Your task to perform on an android device: change the clock display to show seconds Image 0: 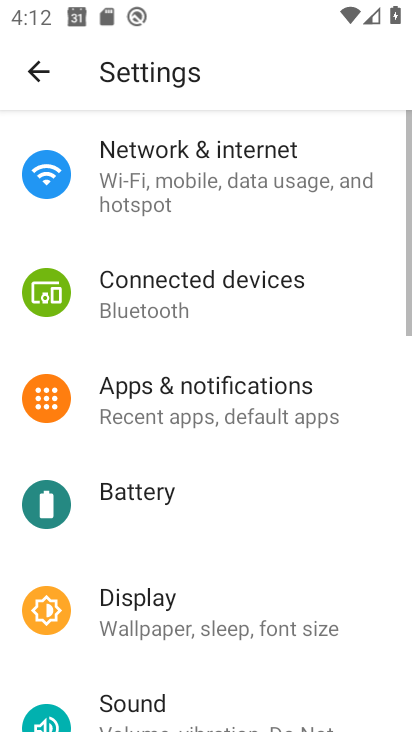
Step 0: press home button
Your task to perform on an android device: change the clock display to show seconds Image 1: 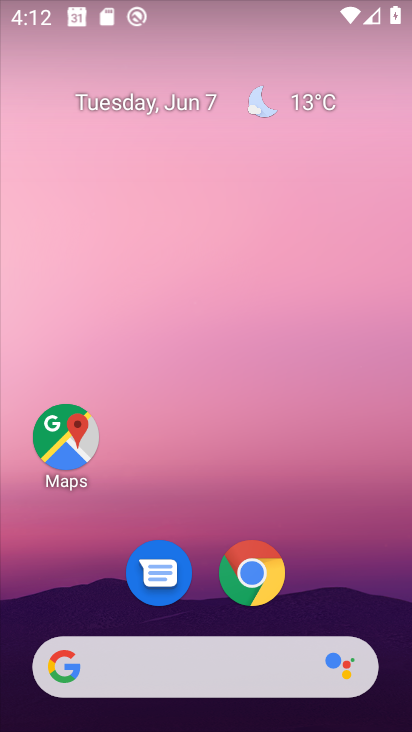
Step 1: drag from (372, 607) to (287, 77)
Your task to perform on an android device: change the clock display to show seconds Image 2: 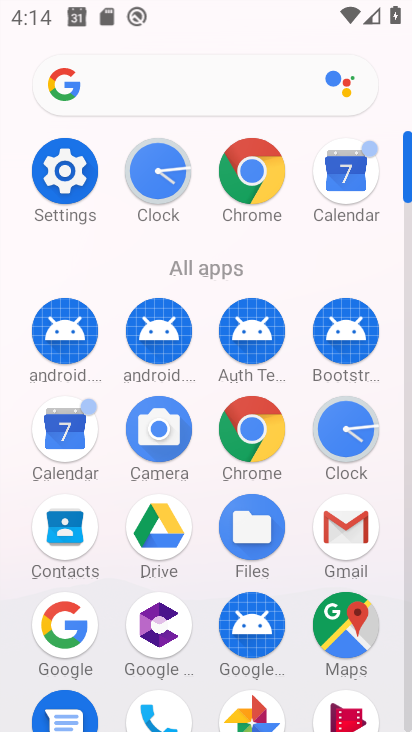
Step 2: click (158, 169)
Your task to perform on an android device: change the clock display to show seconds Image 3: 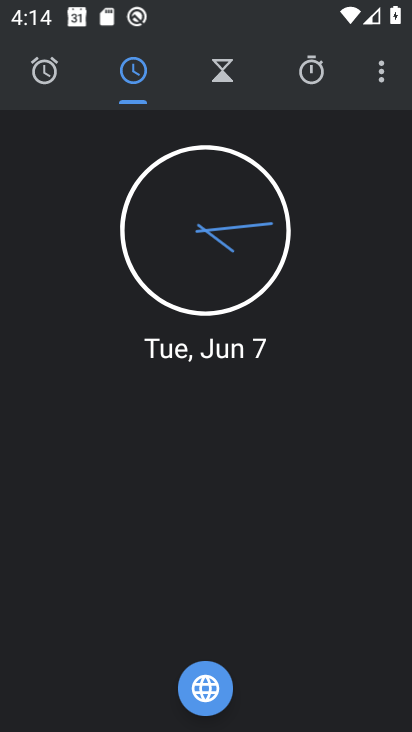
Step 3: click (384, 69)
Your task to perform on an android device: change the clock display to show seconds Image 4: 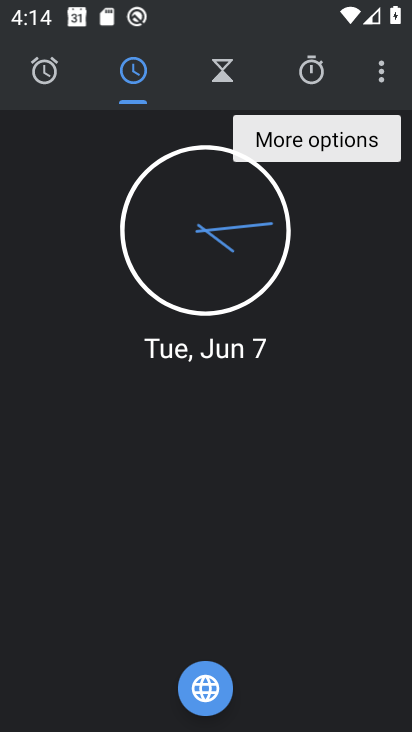
Step 4: click (384, 69)
Your task to perform on an android device: change the clock display to show seconds Image 5: 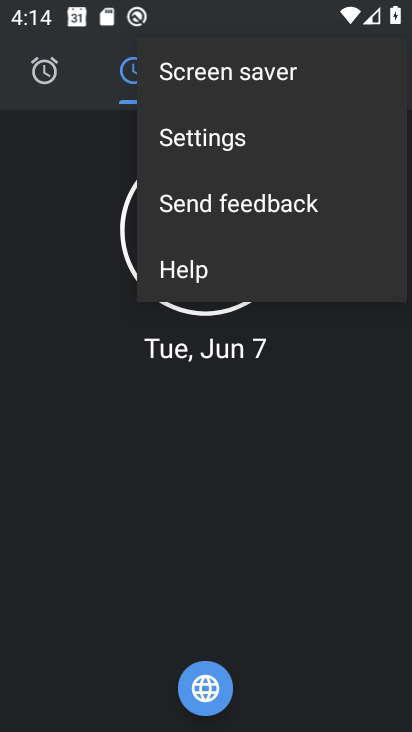
Step 5: click (264, 147)
Your task to perform on an android device: change the clock display to show seconds Image 6: 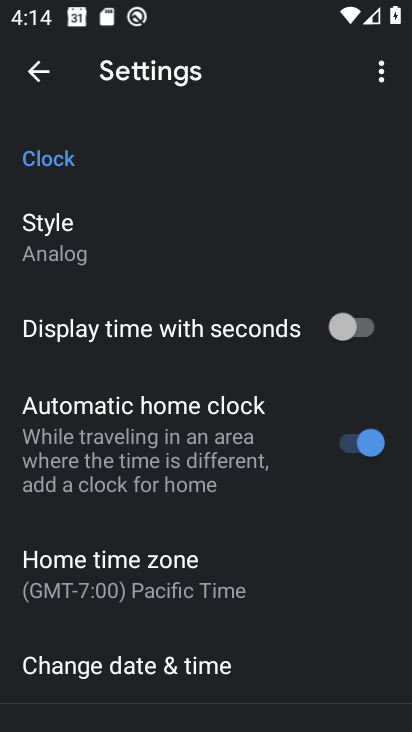
Step 6: click (281, 335)
Your task to perform on an android device: change the clock display to show seconds Image 7: 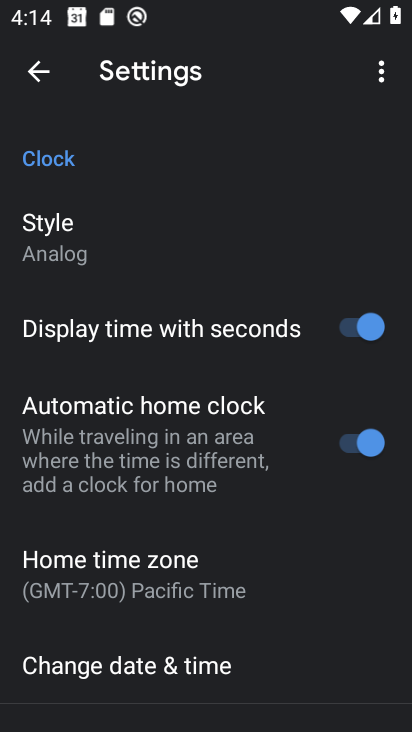
Step 7: task complete